Your task to perform on an android device: Open Maps and search for coffee Image 0: 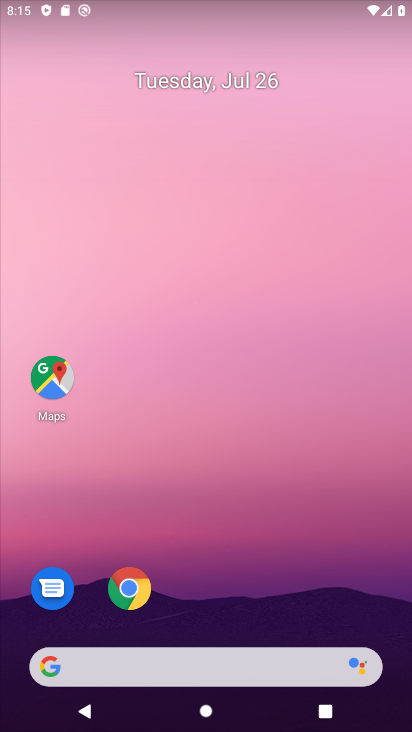
Step 0: click (53, 383)
Your task to perform on an android device: Open Maps and search for coffee Image 1: 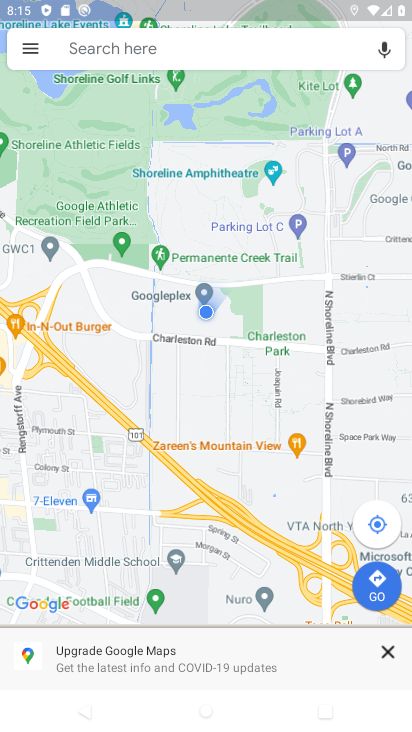
Step 1: click (69, 52)
Your task to perform on an android device: Open Maps and search for coffee Image 2: 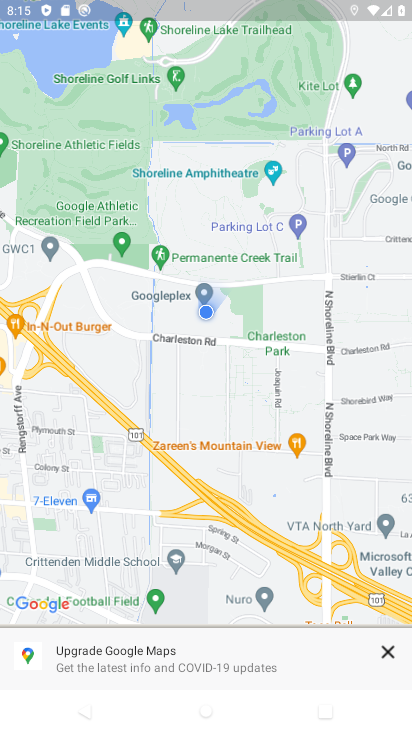
Step 2: drag from (208, 123) to (208, 194)
Your task to perform on an android device: Open Maps and search for coffee Image 3: 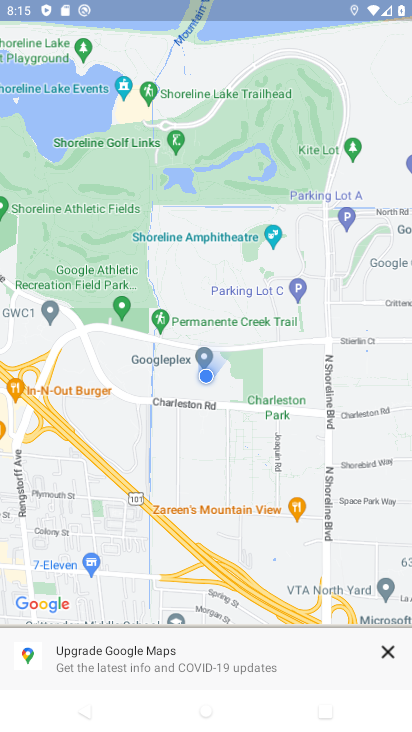
Step 3: click (236, 69)
Your task to perform on an android device: Open Maps and search for coffee Image 4: 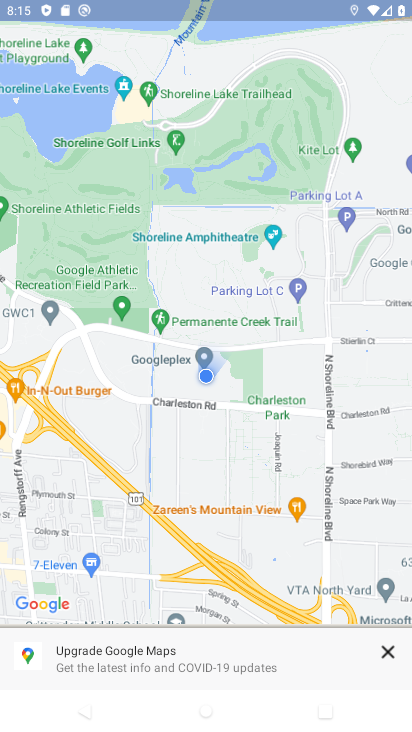
Step 4: type "coffee"
Your task to perform on an android device: Open Maps and search for coffee Image 5: 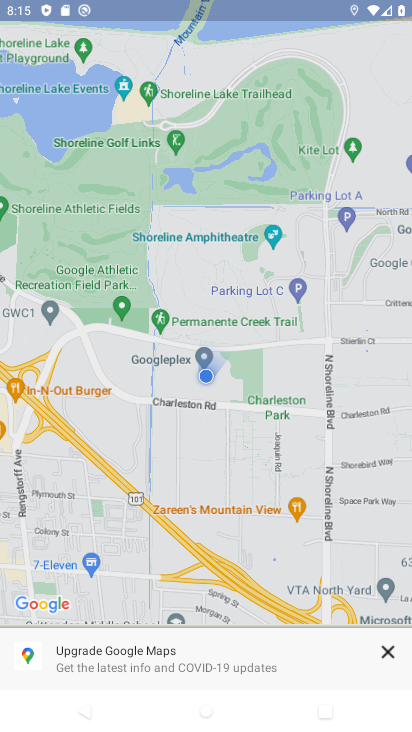
Step 5: click (235, 51)
Your task to perform on an android device: Open Maps and search for coffee Image 6: 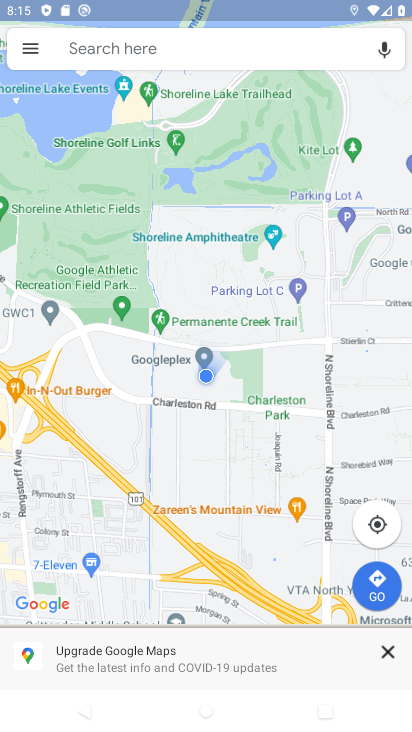
Step 6: click (150, 52)
Your task to perform on an android device: Open Maps and search for coffee Image 7: 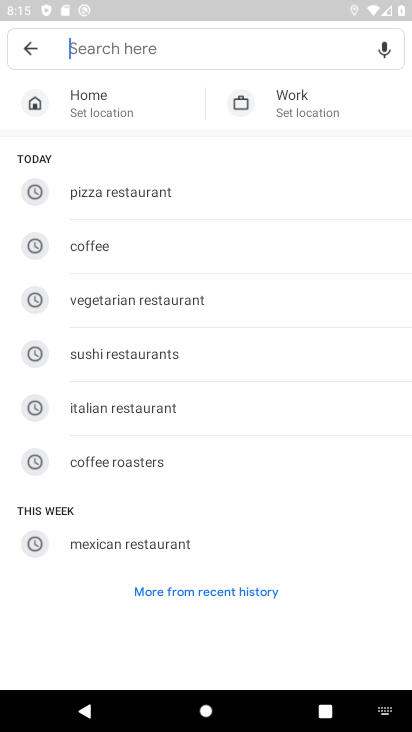
Step 7: click (94, 238)
Your task to perform on an android device: Open Maps and search for coffee Image 8: 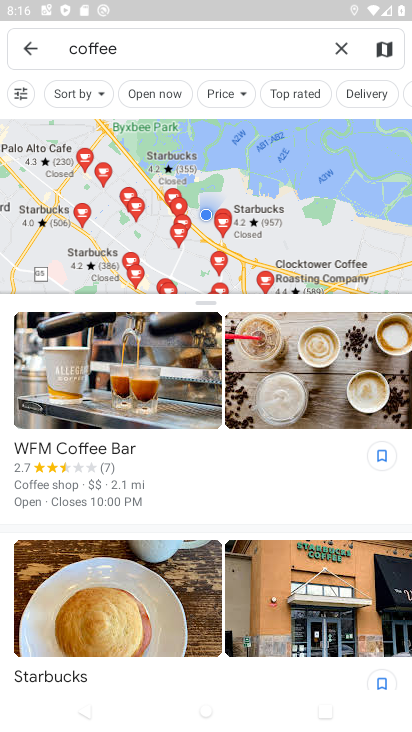
Step 8: task complete